Your task to perform on an android device: Open Youtube and go to "Your channel" Image 0: 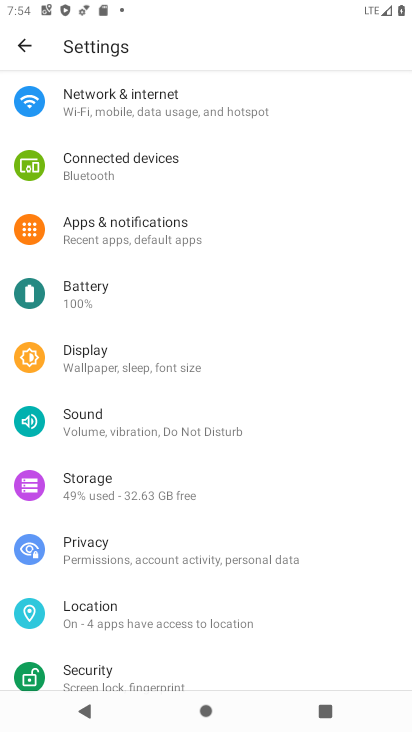
Step 0: press home button
Your task to perform on an android device: Open Youtube and go to "Your channel" Image 1: 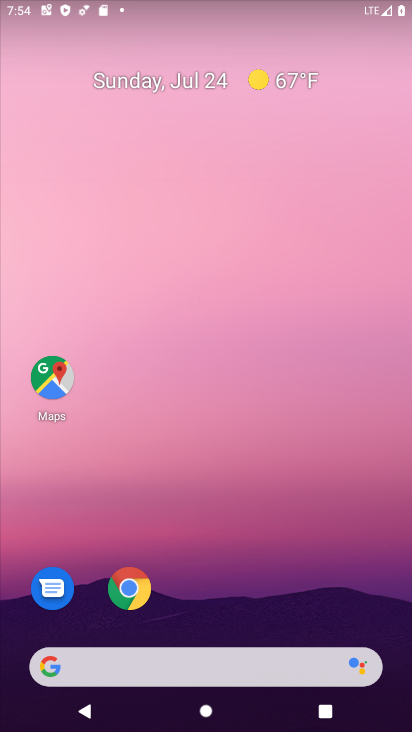
Step 1: drag from (241, 661) to (246, 317)
Your task to perform on an android device: Open Youtube and go to "Your channel" Image 2: 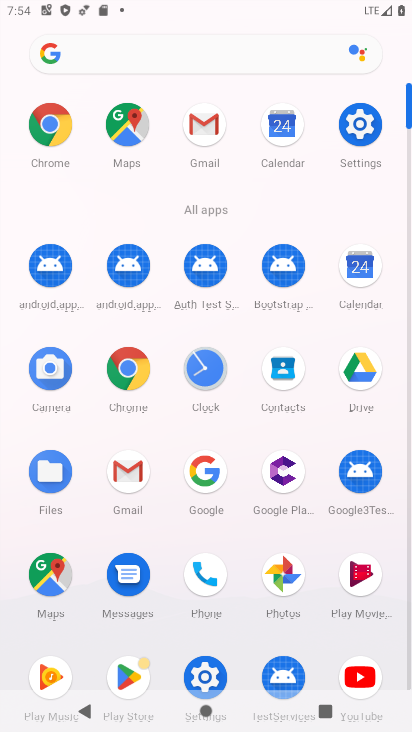
Step 2: click (367, 674)
Your task to perform on an android device: Open Youtube and go to "Your channel" Image 3: 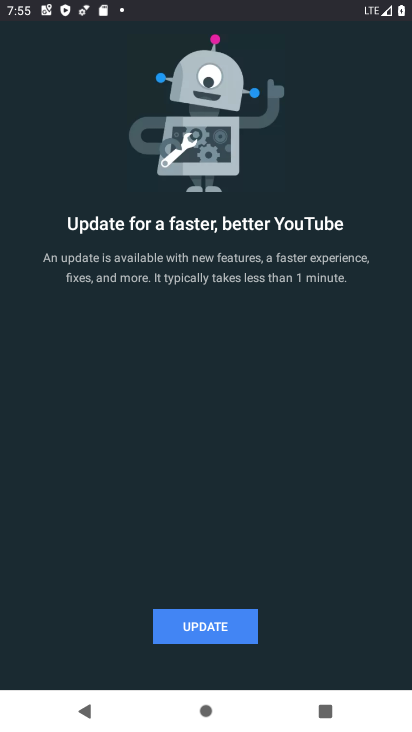
Step 3: task complete